Your task to perform on an android device: What's the weather going to be tomorrow? Image 0: 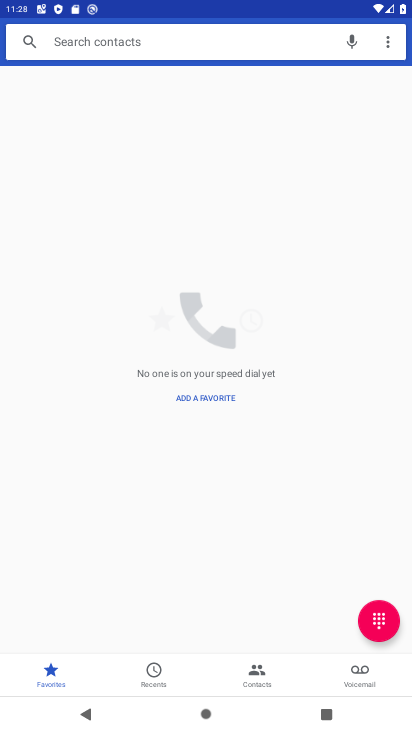
Step 0: press home button
Your task to perform on an android device: What's the weather going to be tomorrow? Image 1: 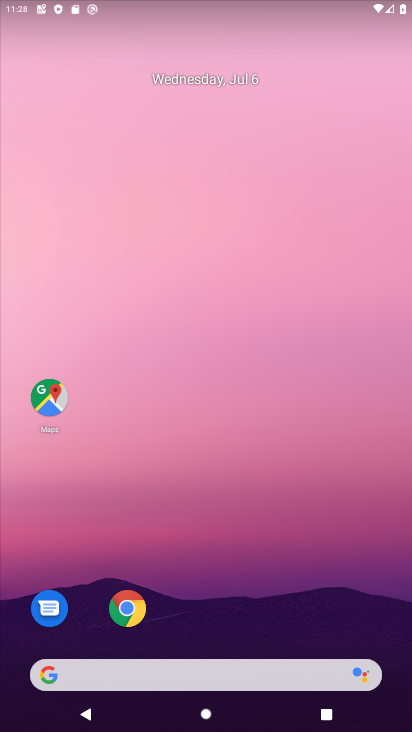
Step 1: click (8, 730)
Your task to perform on an android device: What's the weather going to be tomorrow? Image 2: 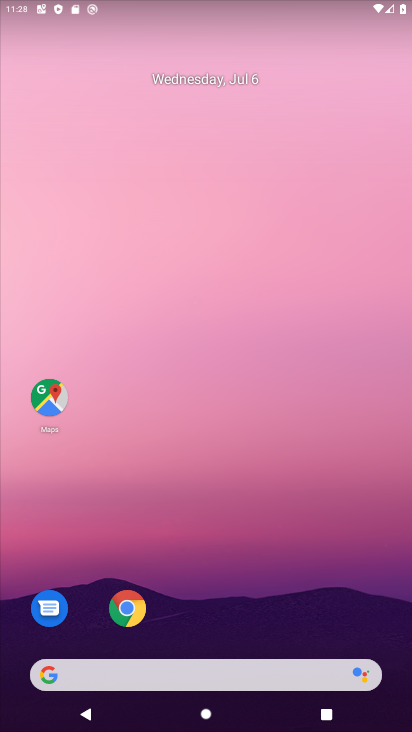
Step 2: click (114, 623)
Your task to perform on an android device: What's the weather going to be tomorrow? Image 3: 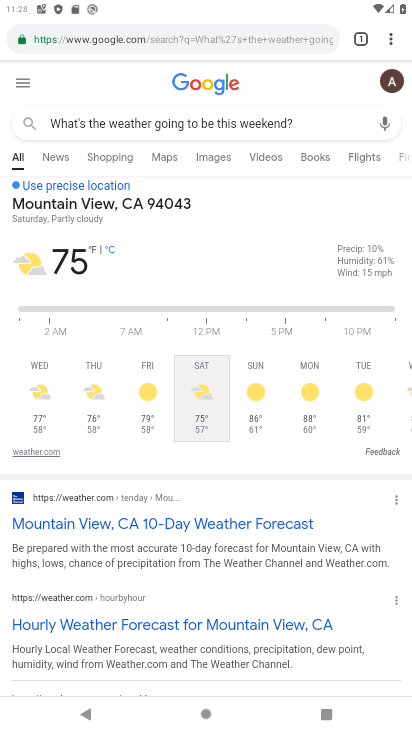
Step 3: click (271, 39)
Your task to perform on an android device: What's the weather going to be tomorrow? Image 4: 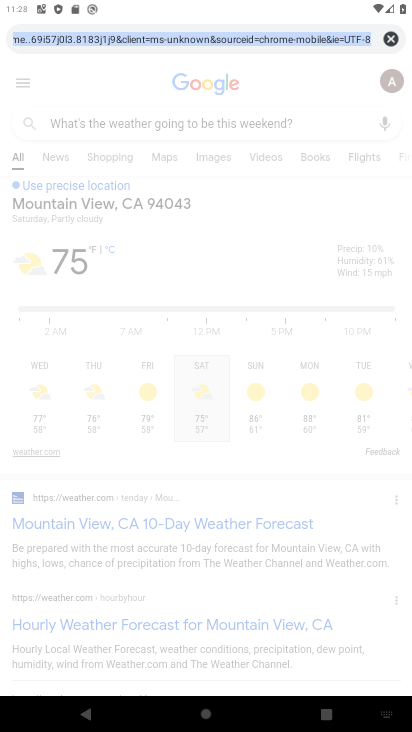
Step 4: type " What's the weather going to be tomorrow?"
Your task to perform on an android device: What's the weather going to be tomorrow? Image 5: 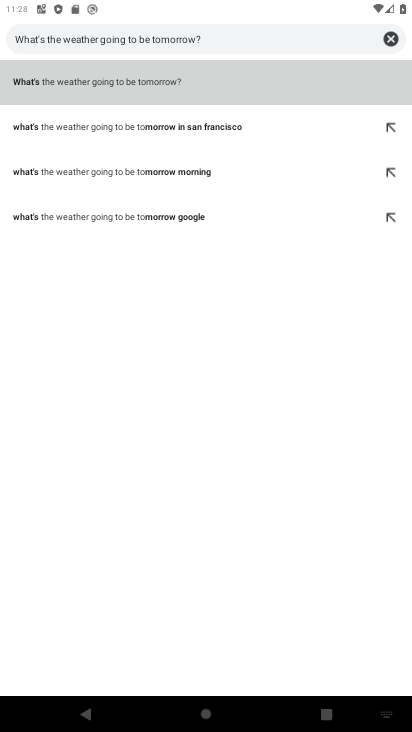
Step 5: click (210, 80)
Your task to perform on an android device: What's the weather going to be tomorrow? Image 6: 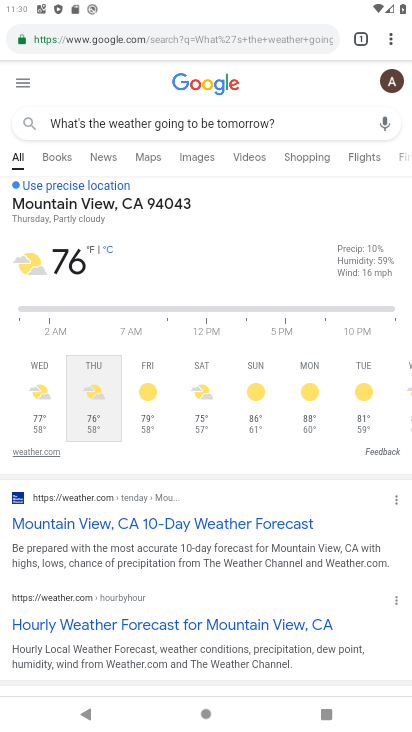
Step 6: task complete